Your task to perform on an android device: Do I have any events this weekend? Image 0: 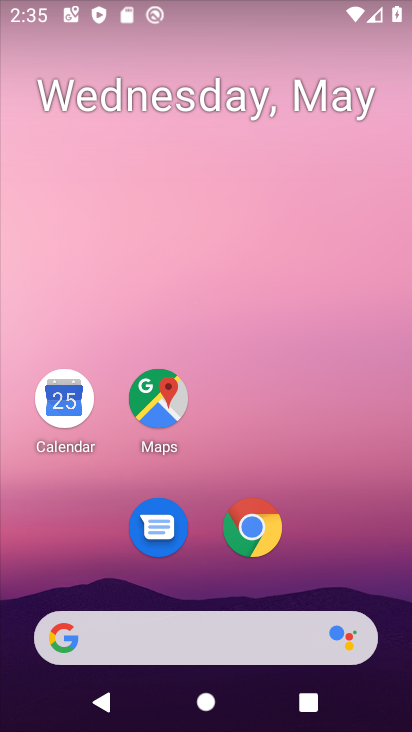
Step 0: drag from (255, 605) to (205, 81)
Your task to perform on an android device: Do I have any events this weekend? Image 1: 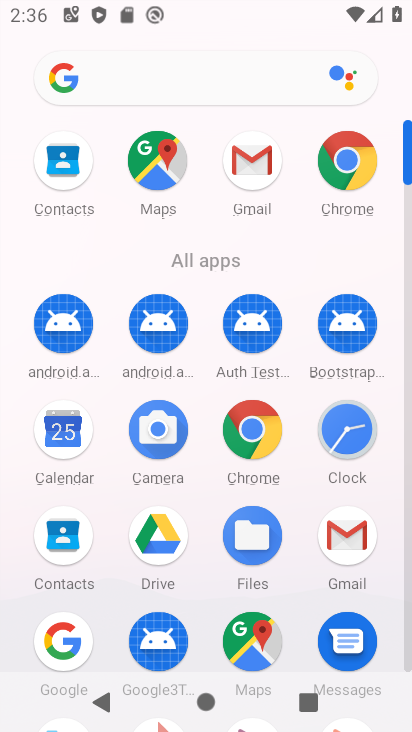
Step 1: drag from (150, 493) to (124, 280)
Your task to perform on an android device: Do I have any events this weekend? Image 2: 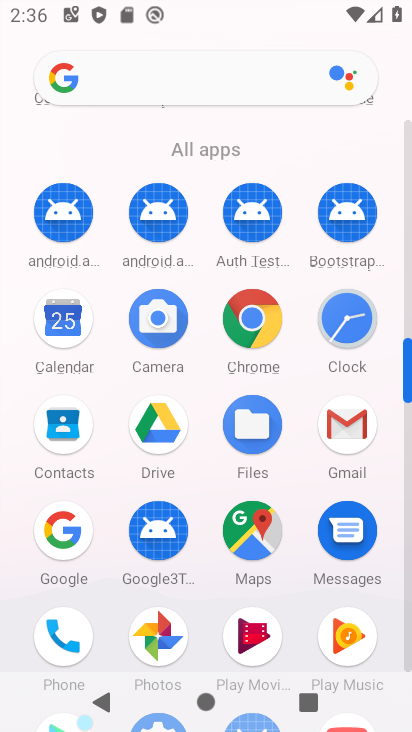
Step 2: drag from (153, 473) to (147, 277)
Your task to perform on an android device: Do I have any events this weekend? Image 3: 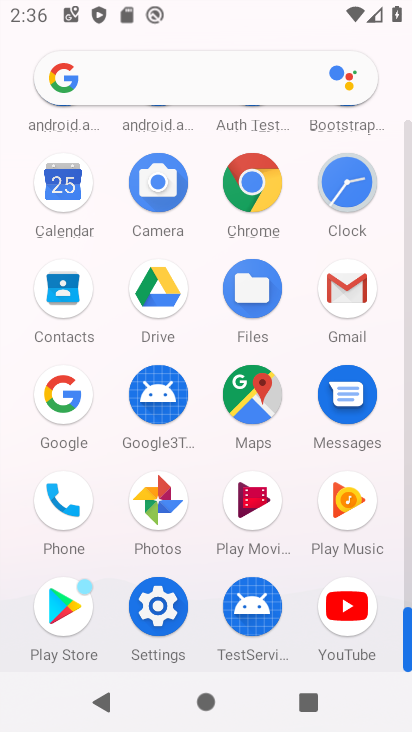
Step 3: click (64, 189)
Your task to perform on an android device: Do I have any events this weekend? Image 4: 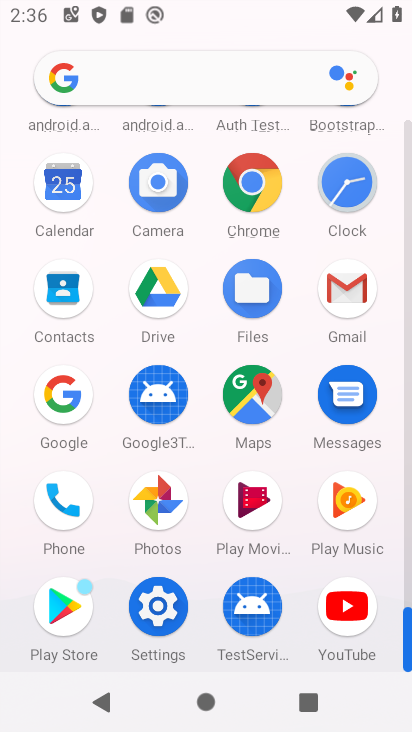
Step 4: click (64, 189)
Your task to perform on an android device: Do I have any events this weekend? Image 5: 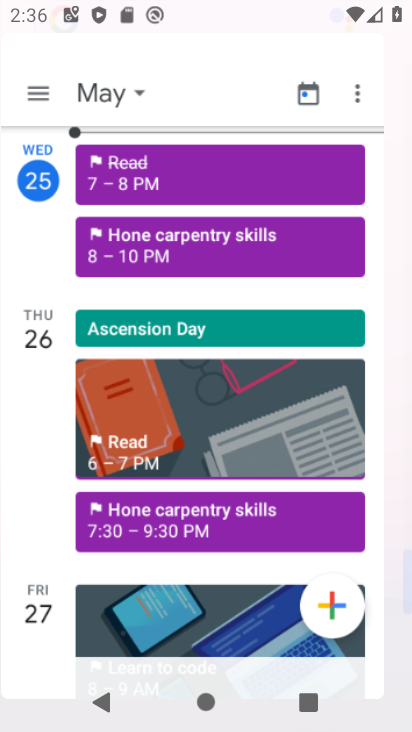
Step 5: click (64, 189)
Your task to perform on an android device: Do I have any events this weekend? Image 6: 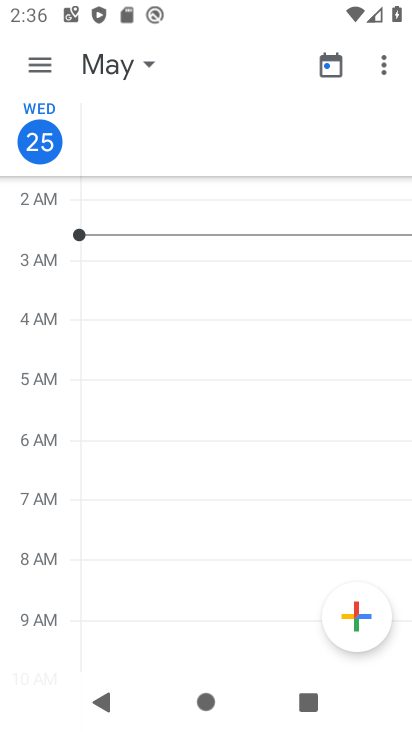
Step 6: click (145, 65)
Your task to perform on an android device: Do I have any events this weekend? Image 7: 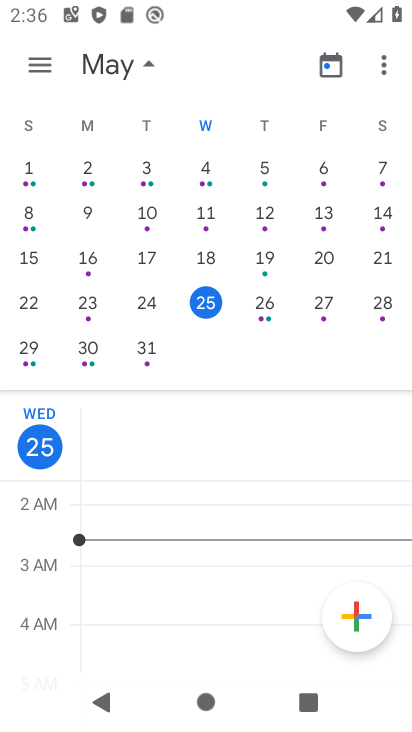
Step 7: click (41, 60)
Your task to perform on an android device: Do I have any events this weekend? Image 8: 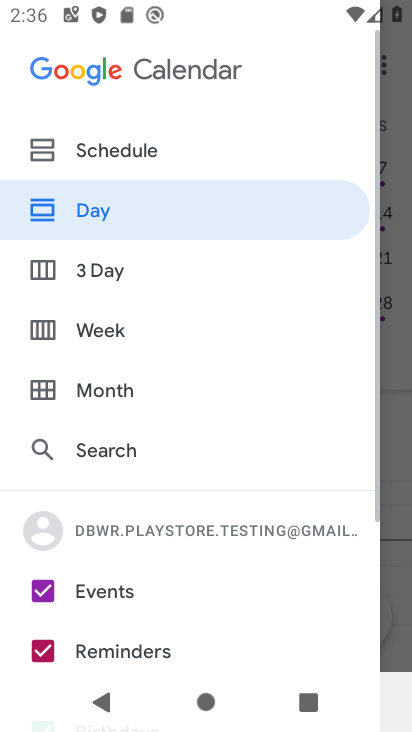
Step 8: click (102, 146)
Your task to perform on an android device: Do I have any events this weekend? Image 9: 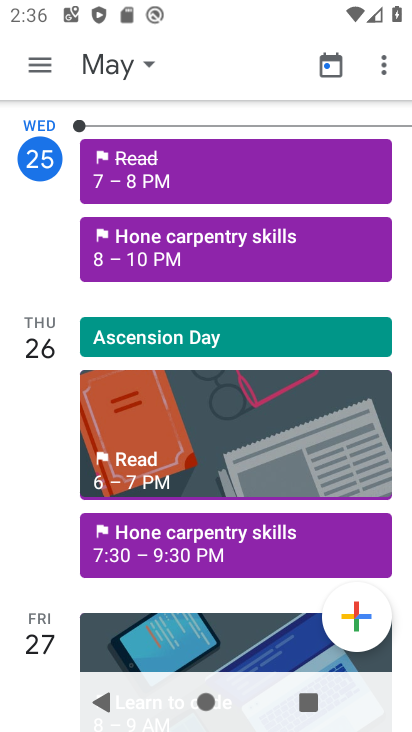
Step 9: click (149, 57)
Your task to perform on an android device: Do I have any events this weekend? Image 10: 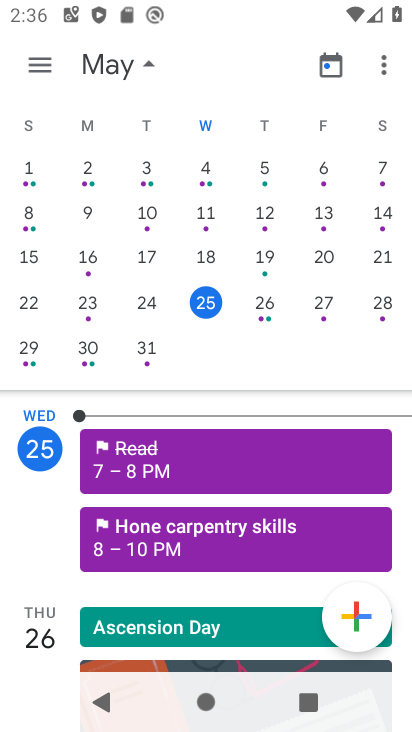
Step 10: click (259, 303)
Your task to perform on an android device: Do I have any events this weekend? Image 11: 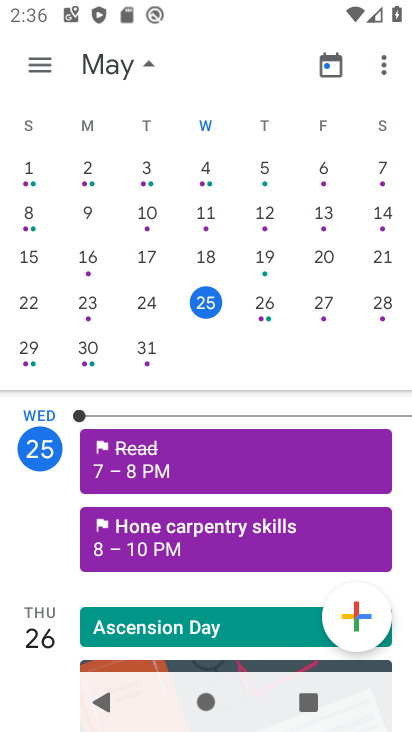
Step 11: click (259, 303)
Your task to perform on an android device: Do I have any events this weekend? Image 12: 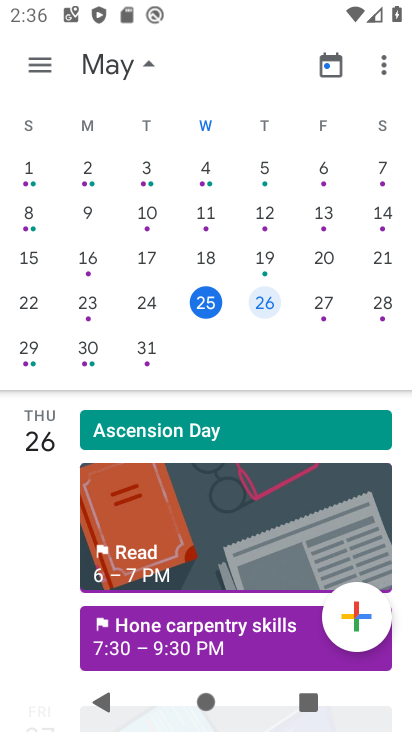
Step 12: click (326, 302)
Your task to perform on an android device: Do I have any events this weekend? Image 13: 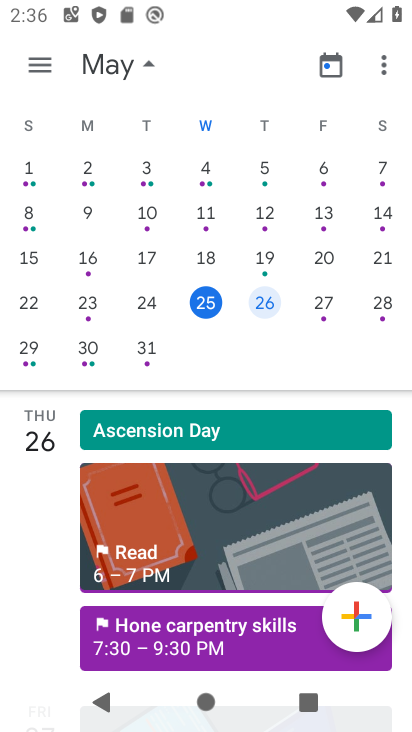
Step 13: click (325, 301)
Your task to perform on an android device: Do I have any events this weekend? Image 14: 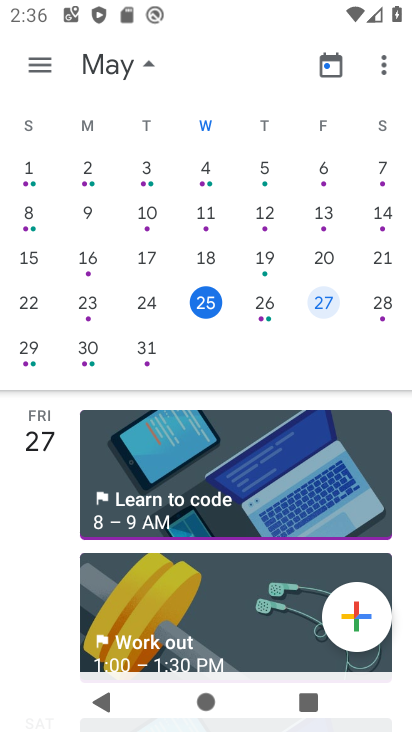
Step 14: click (325, 300)
Your task to perform on an android device: Do I have any events this weekend? Image 15: 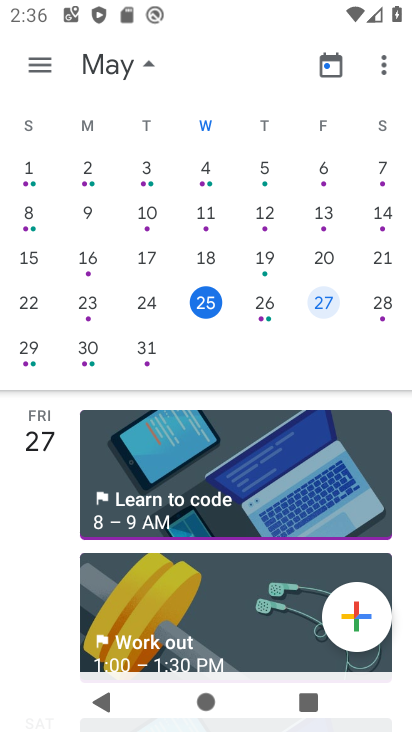
Step 15: click (325, 300)
Your task to perform on an android device: Do I have any events this weekend? Image 16: 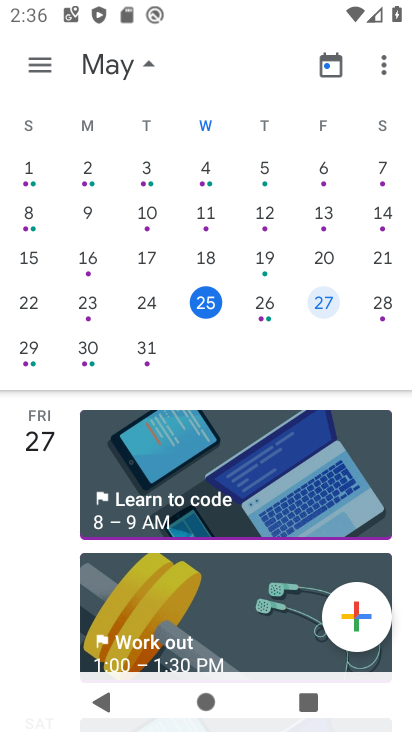
Step 16: click (326, 298)
Your task to perform on an android device: Do I have any events this weekend? Image 17: 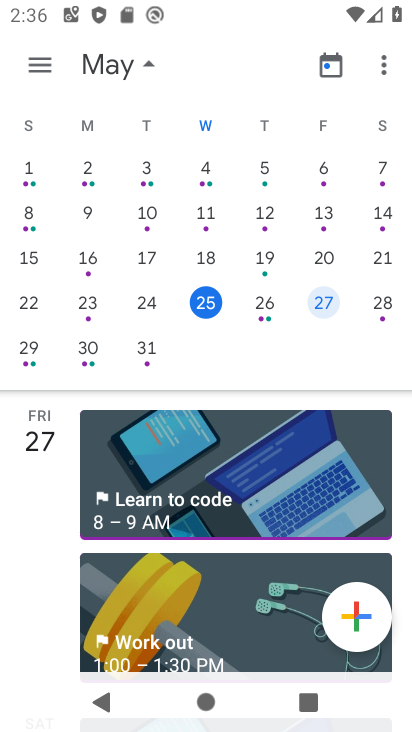
Step 17: click (326, 298)
Your task to perform on an android device: Do I have any events this weekend? Image 18: 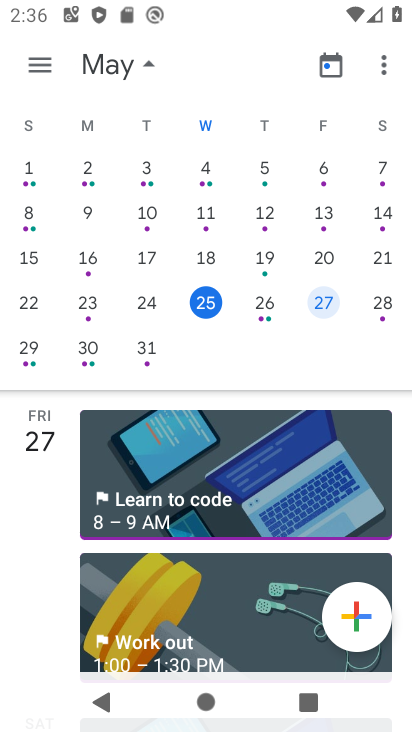
Step 18: click (327, 298)
Your task to perform on an android device: Do I have any events this weekend? Image 19: 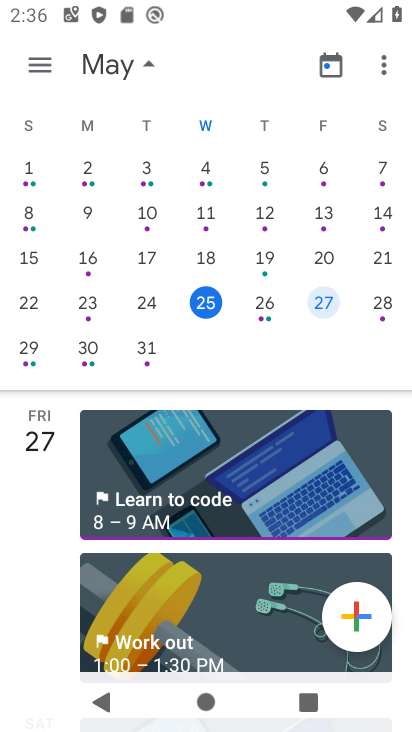
Step 19: click (329, 295)
Your task to perform on an android device: Do I have any events this weekend? Image 20: 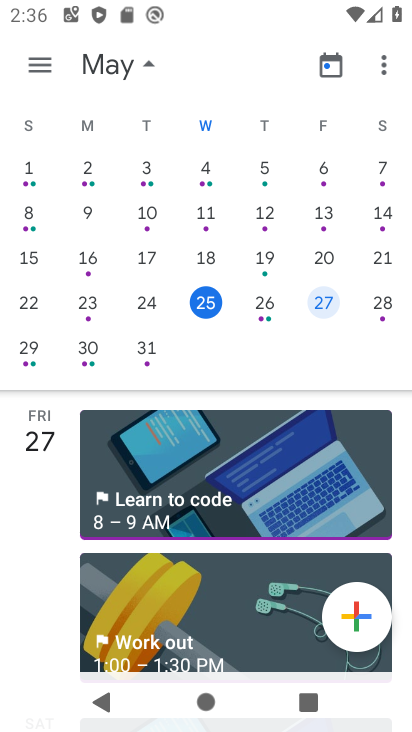
Step 20: click (330, 295)
Your task to perform on an android device: Do I have any events this weekend? Image 21: 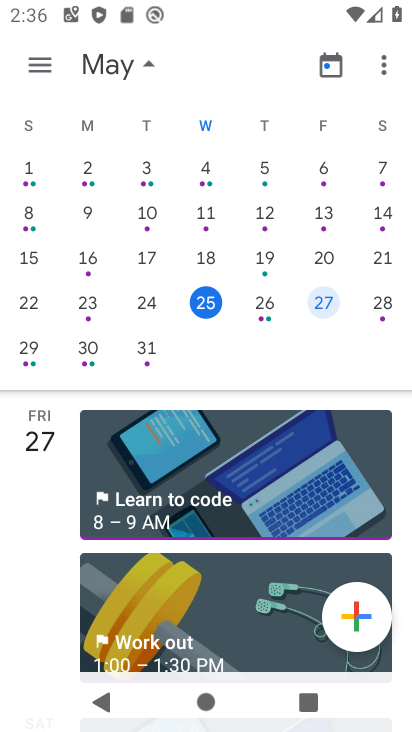
Step 21: click (330, 295)
Your task to perform on an android device: Do I have any events this weekend? Image 22: 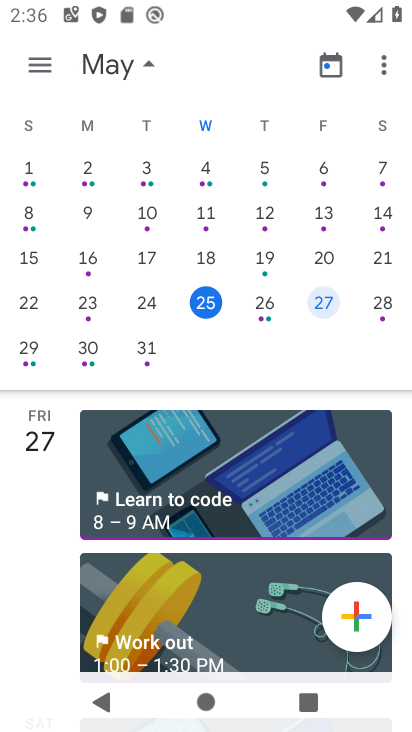
Step 22: click (330, 300)
Your task to perform on an android device: Do I have any events this weekend? Image 23: 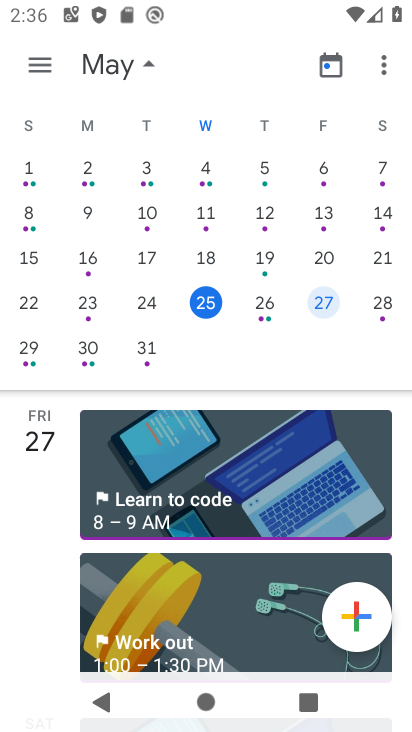
Step 23: task complete